Your task to perform on an android device: Open Youtube and go to "Your channel" Image 0: 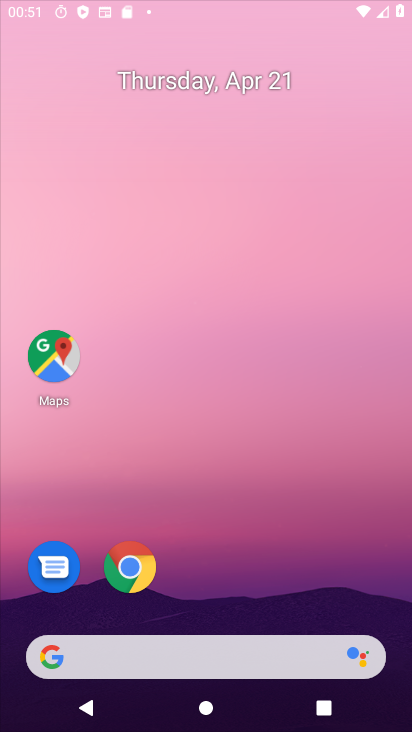
Step 0: click (282, 165)
Your task to perform on an android device: Open Youtube and go to "Your channel" Image 1: 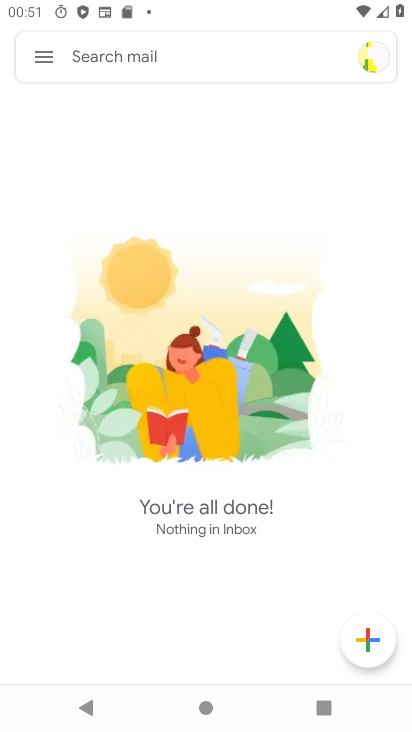
Step 1: press home button
Your task to perform on an android device: Open Youtube and go to "Your channel" Image 2: 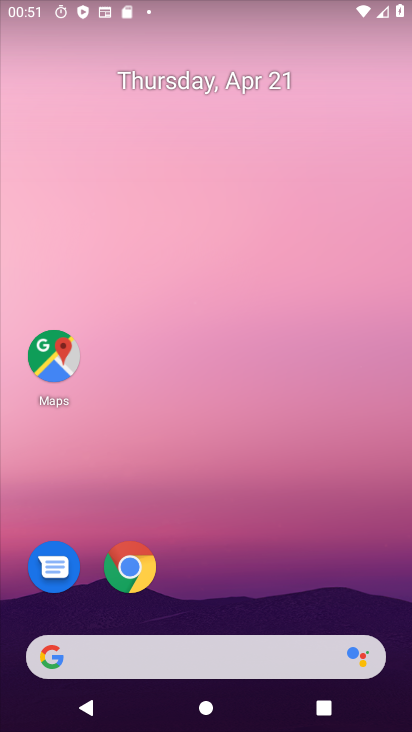
Step 2: drag from (246, 577) to (269, 244)
Your task to perform on an android device: Open Youtube and go to "Your channel" Image 3: 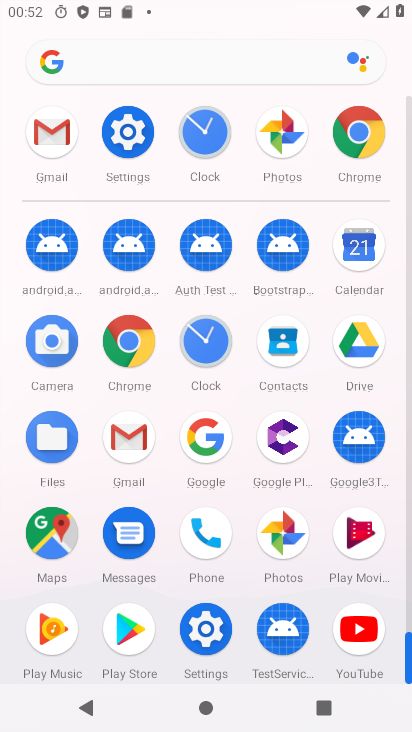
Step 3: click (350, 621)
Your task to perform on an android device: Open Youtube and go to "Your channel" Image 4: 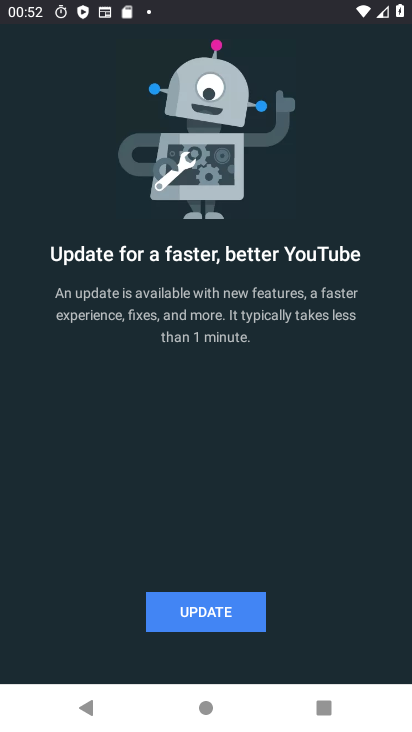
Step 4: click (243, 604)
Your task to perform on an android device: Open Youtube and go to "Your channel" Image 5: 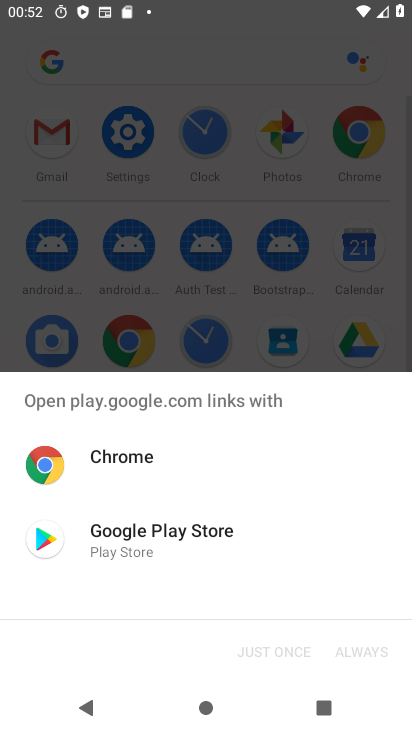
Step 5: press back button
Your task to perform on an android device: Open Youtube and go to "Your channel" Image 6: 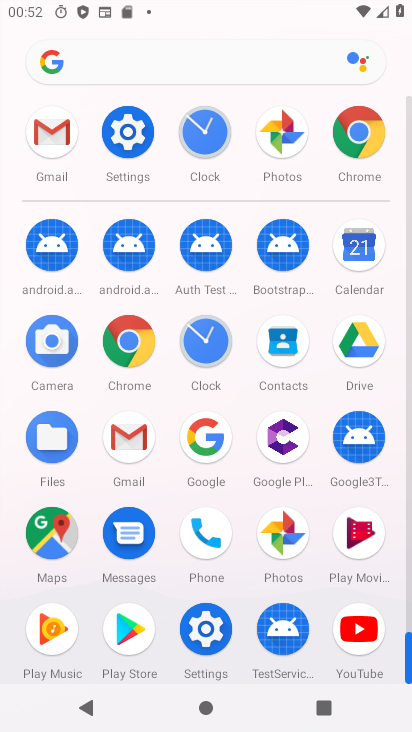
Step 6: click (351, 627)
Your task to perform on an android device: Open Youtube and go to "Your channel" Image 7: 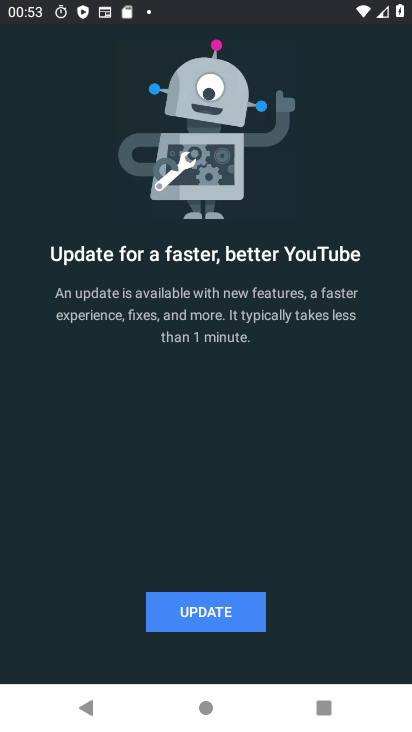
Step 7: task complete